Your task to perform on an android device: turn on showing notifications on the lock screen Image 0: 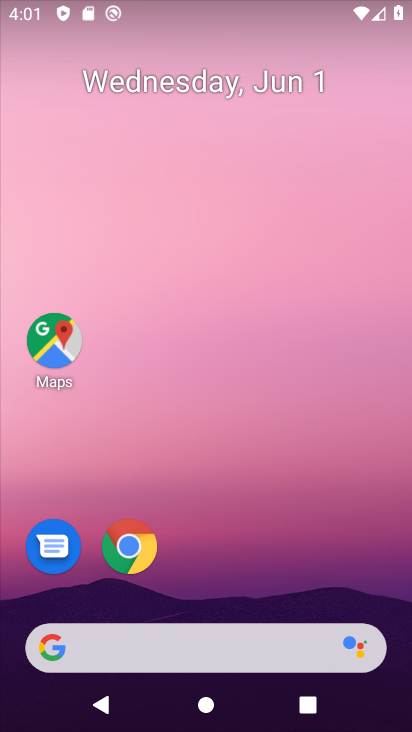
Step 0: drag from (240, 513) to (135, 113)
Your task to perform on an android device: turn on showing notifications on the lock screen Image 1: 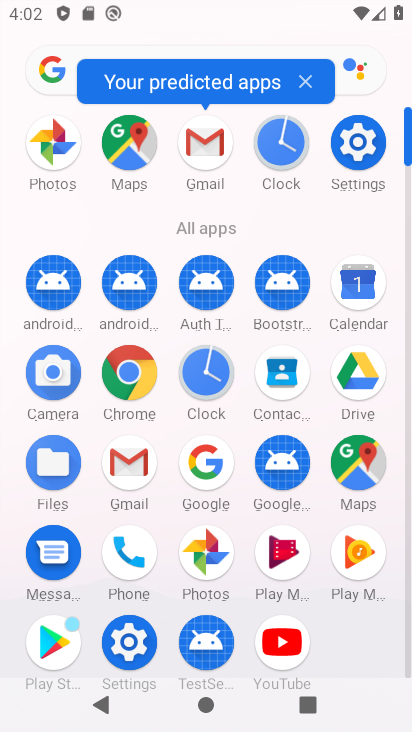
Step 1: click (357, 145)
Your task to perform on an android device: turn on showing notifications on the lock screen Image 2: 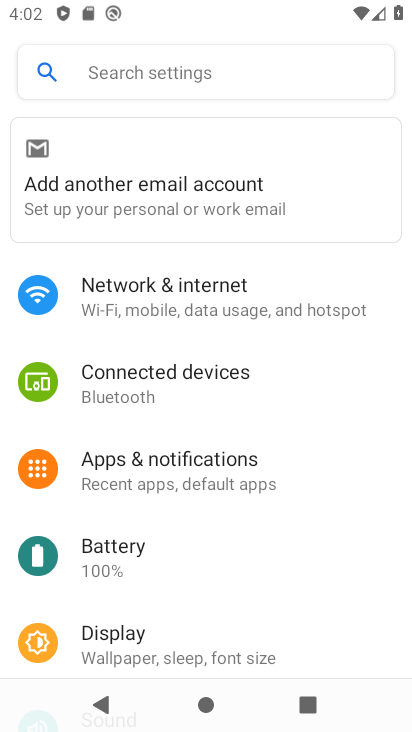
Step 2: click (150, 468)
Your task to perform on an android device: turn on showing notifications on the lock screen Image 3: 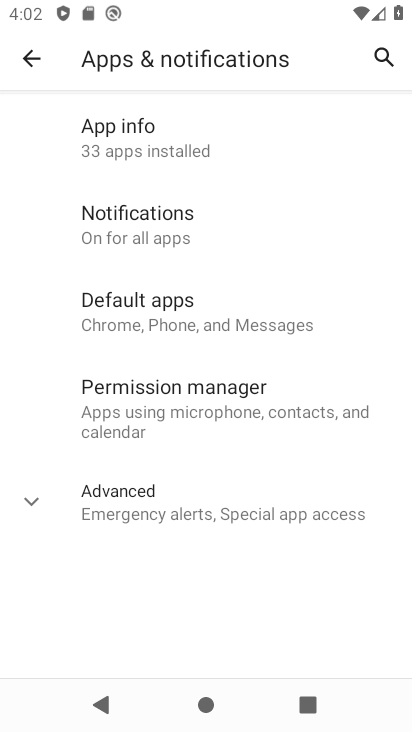
Step 3: click (142, 216)
Your task to perform on an android device: turn on showing notifications on the lock screen Image 4: 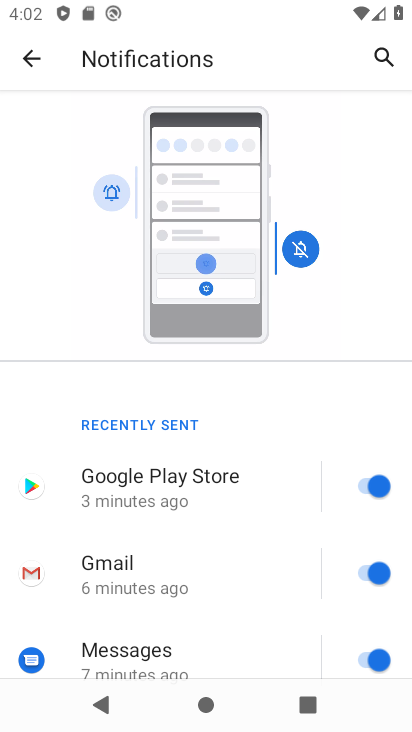
Step 4: drag from (195, 537) to (208, 228)
Your task to perform on an android device: turn on showing notifications on the lock screen Image 5: 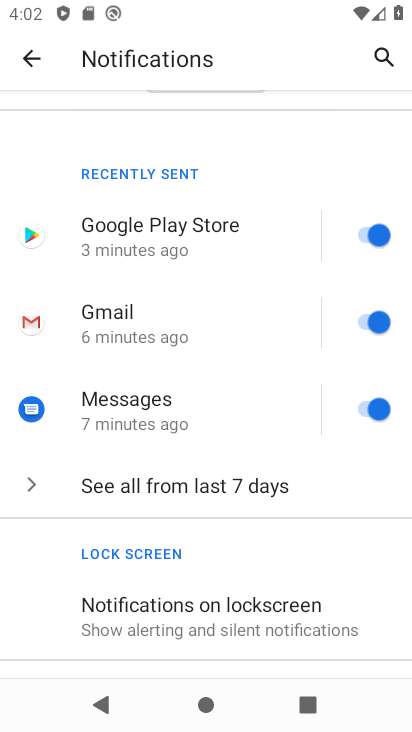
Step 5: click (213, 602)
Your task to perform on an android device: turn on showing notifications on the lock screen Image 6: 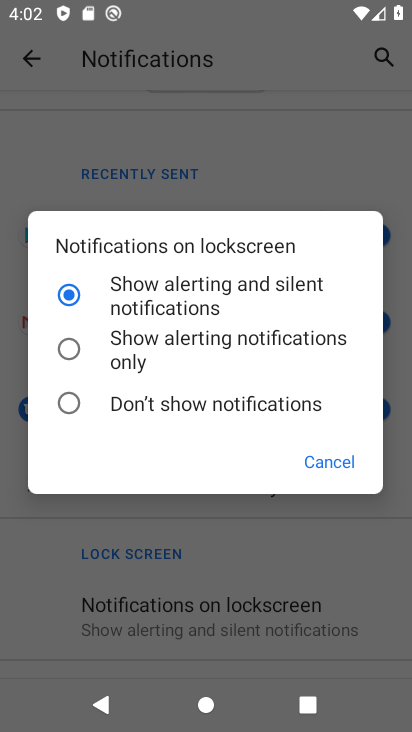
Step 6: task complete